Your task to perform on an android device: Show me popular games on the Play Store Image 0: 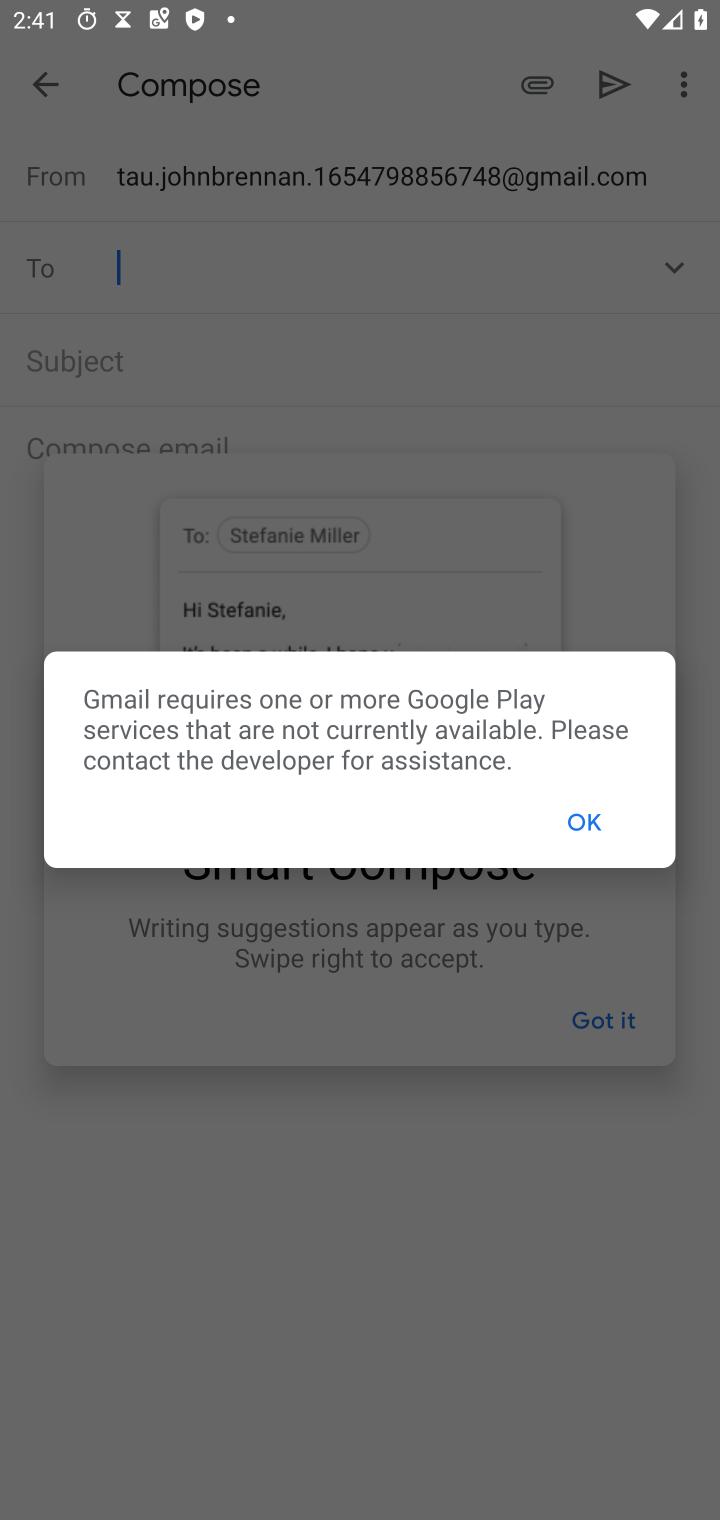
Step 0: press home button
Your task to perform on an android device: Show me popular games on the Play Store Image 1: 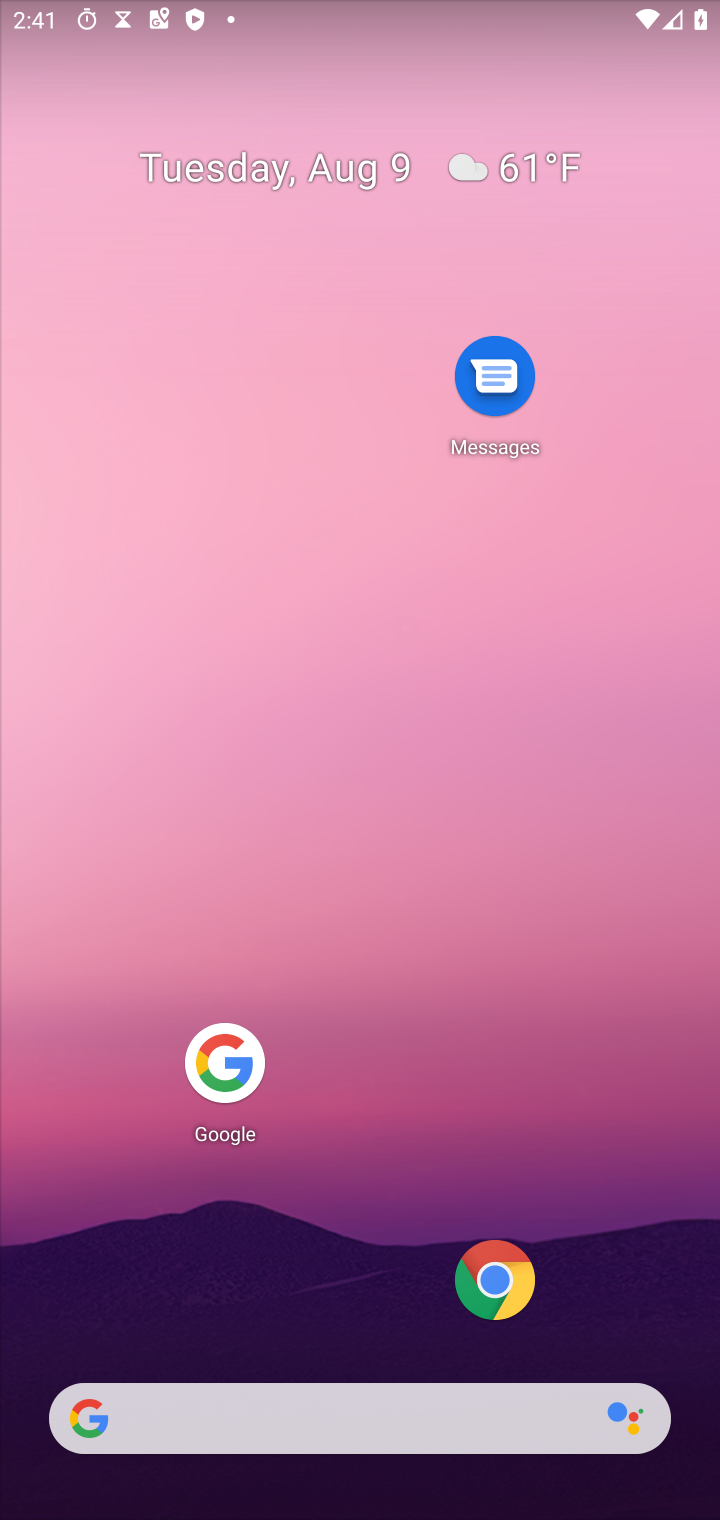
Step 1: drag from (254, 1425) to (365, 457)
Your task to perform on an android device: Show me popular games on the Play Store Image 2: 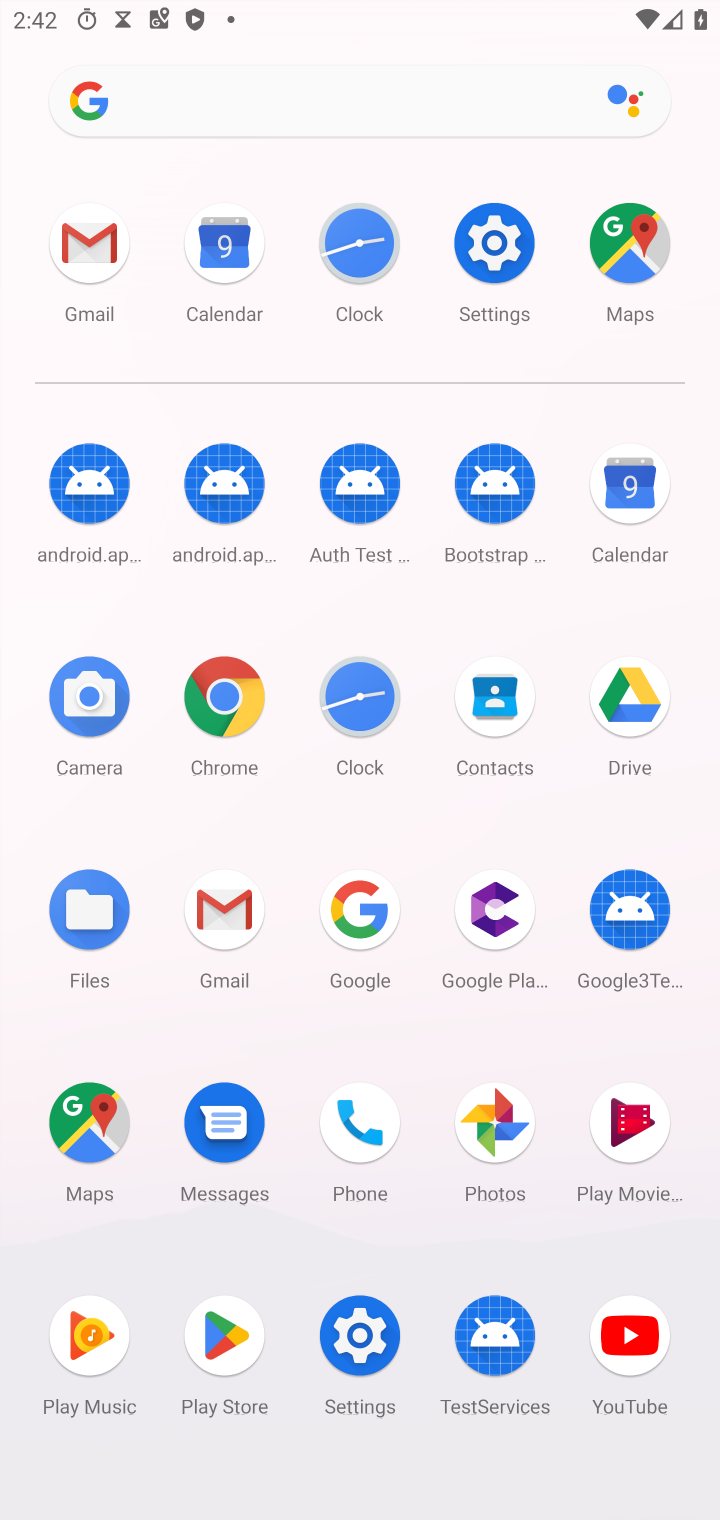
Step 2: click (221, 1344)
Your task to perform on an android device: Show me popular games on the Play Store Image 3: 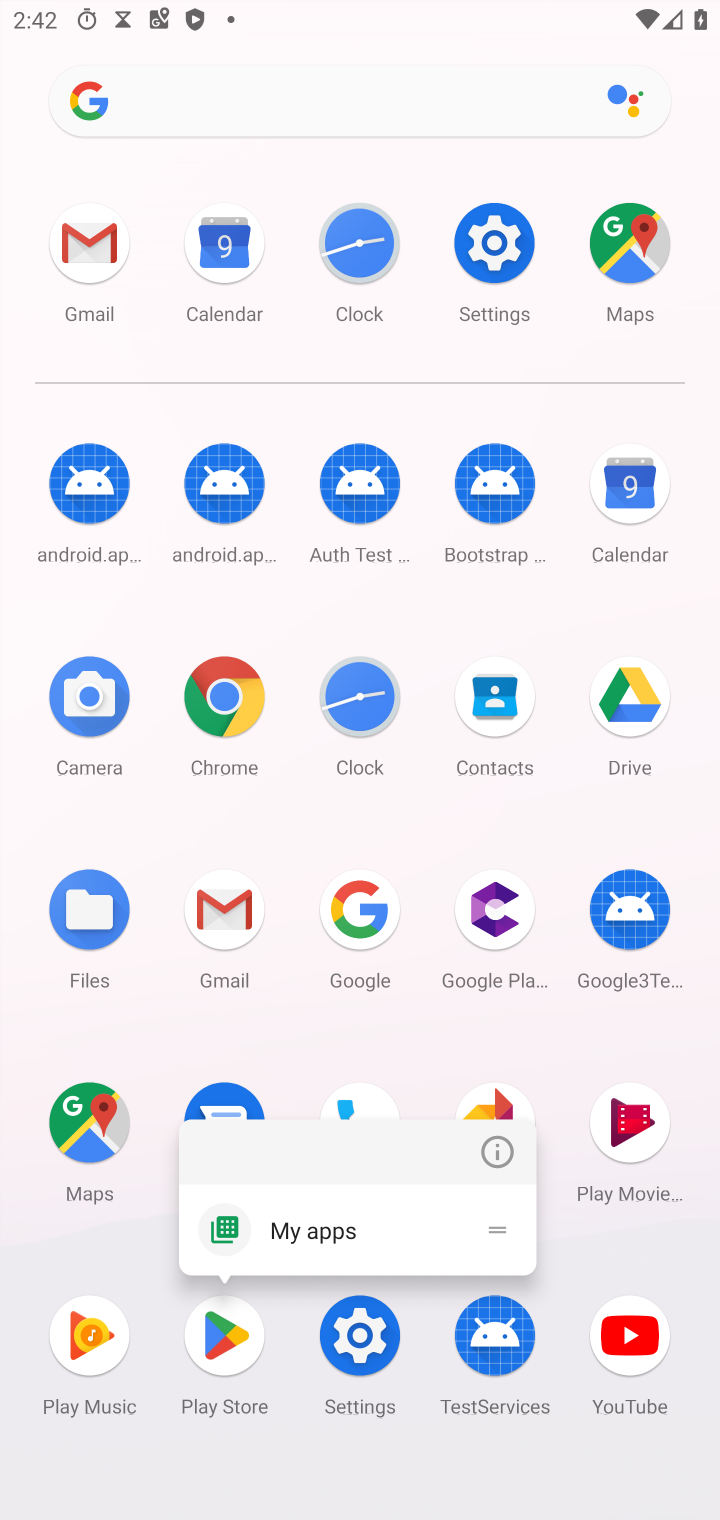
Step 3: click (221, 1351)
Your task to perform on an android device: Show me popular games on the Play Store Image 4: 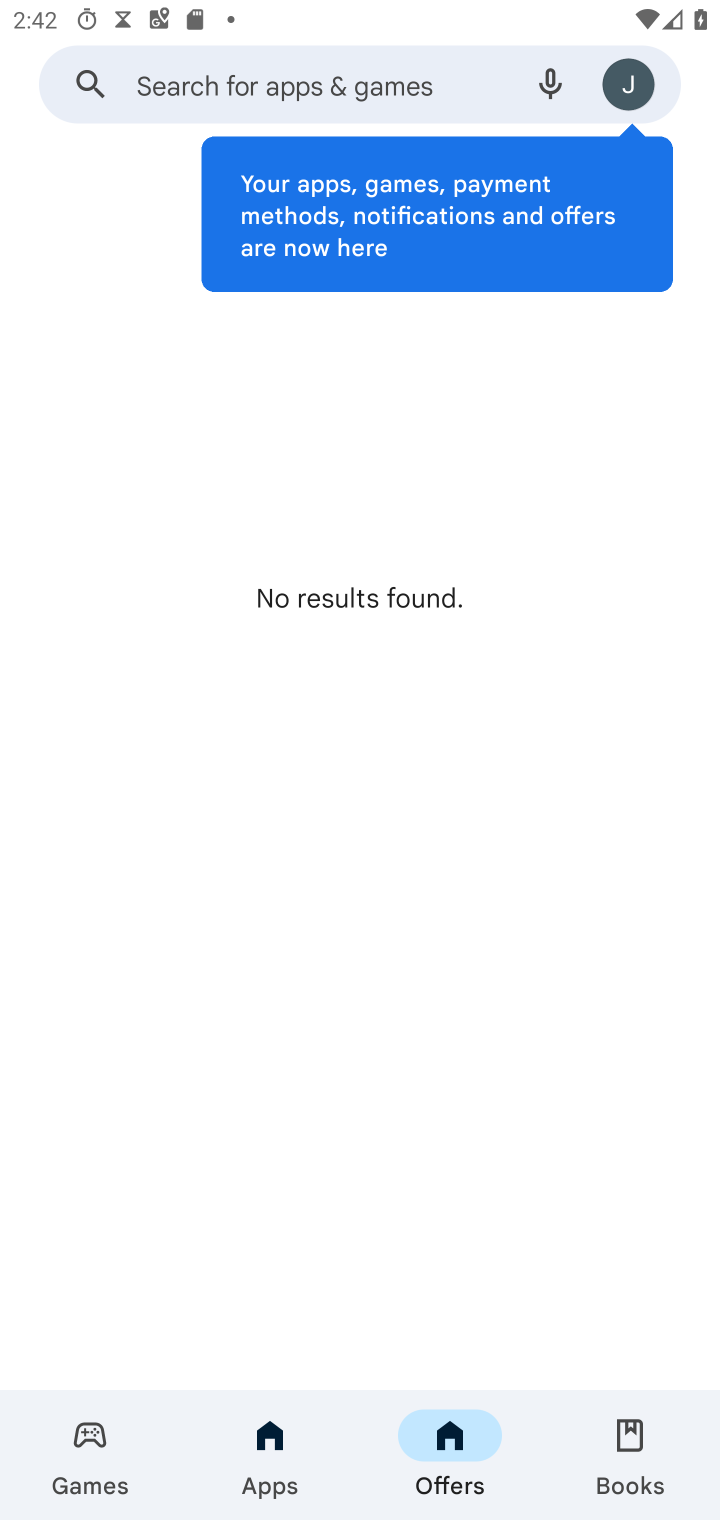
Step 4: click (75, 1452)
Your task to perform on an android device: Show me popular games on the Play Store Image 5: 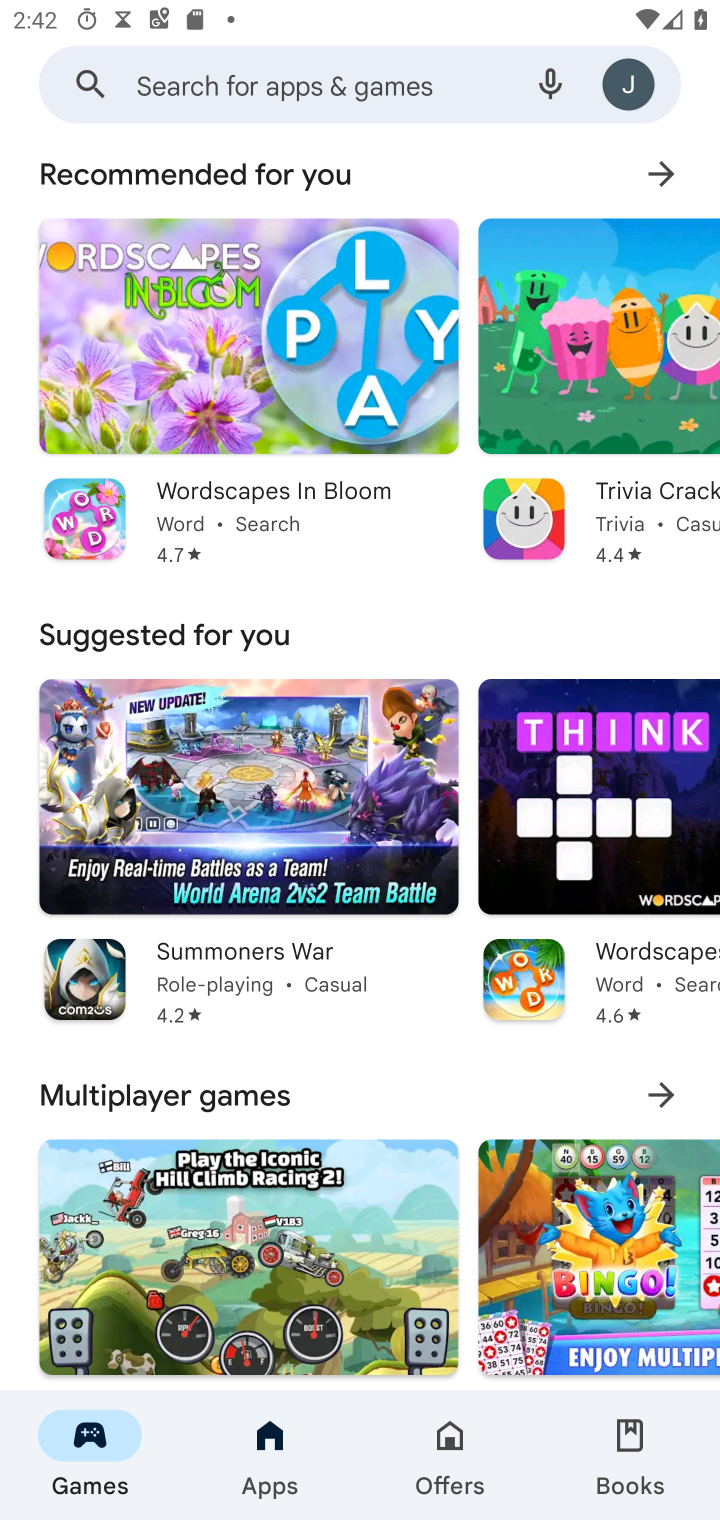
Step 5: task complete